Your task to perform on an android device: Open Chrome and go to settings Image 0: 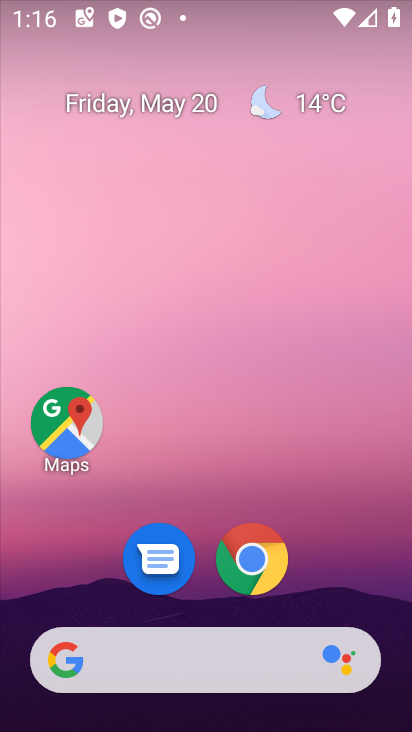
Step 0: click (250, 550)
Your task to perform on an android device: Open Chrome and go to settings Image 1: 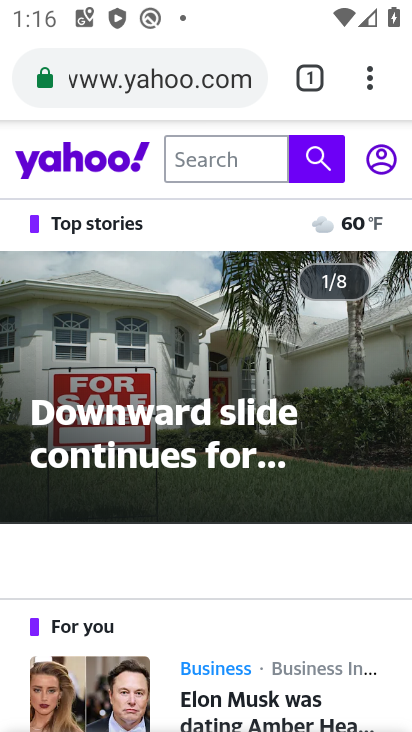
Step 1: click (371, 91)
Your task to perform on an android device: Open Chrome and go to settings Image 2: 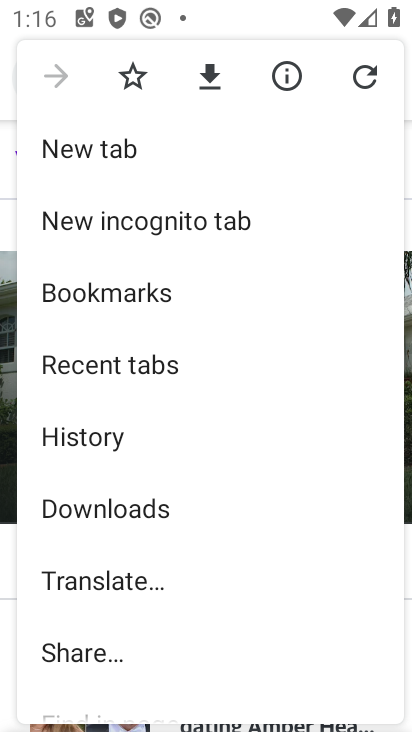
Step 2: drag from (214, 591) to (253, 255)
Your task to perform on an android device: Open Chrome and go to settings Image 3: 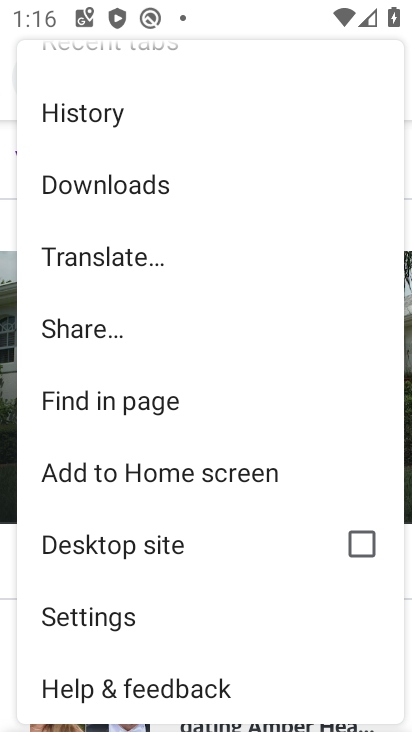
Step 3: click (209, 633)
Your task to perform on an android device: Open Chrome and go to settings Image 4: 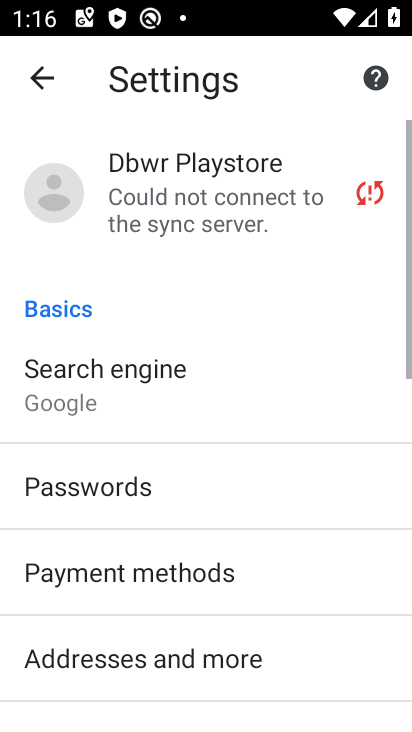
Step 4: task complete